Your task to perform on an android device: clear history in the chrome app Image 0: 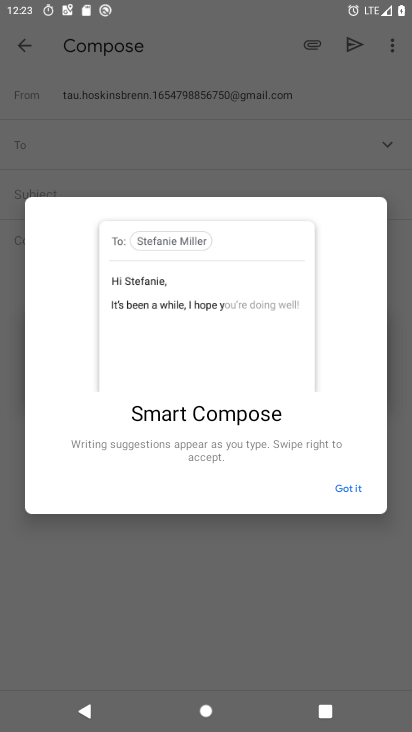
Step 0: press home button
Your task to perform on an android device: clear history in the chrome app Image 1: 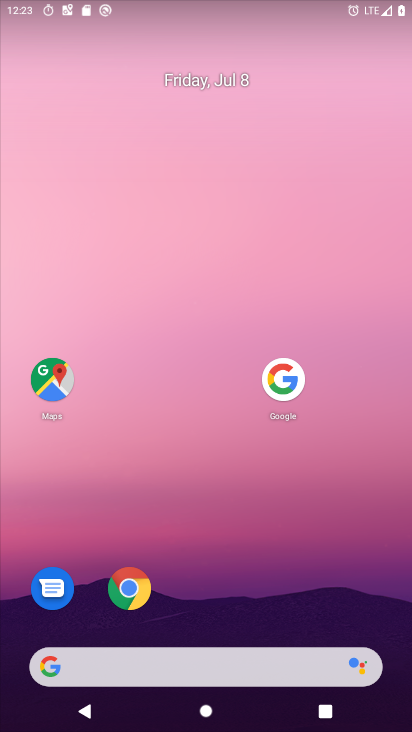
Step 1: click (138, 594)
Your task to perform on an android device: clear history in the chrome app Image 2: 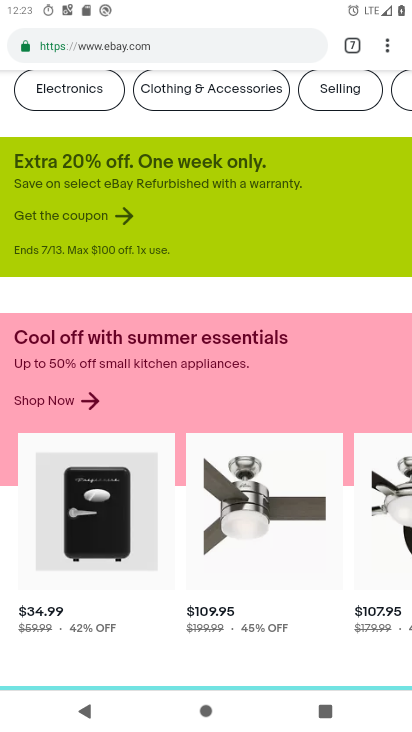
Step 2: drag from (389, 48) to (234, 266)
Your task to perform on an android device: clear history in the chrome app Image 3: 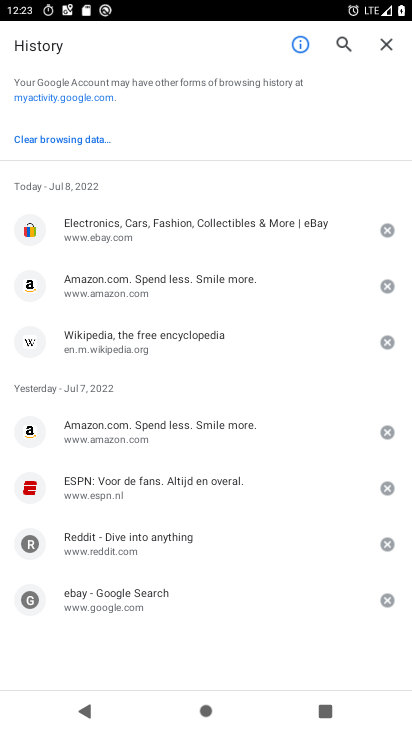
Step 3: click (63, 141)
Your task to perform on an android device: clear history in the chrome app Image 4: 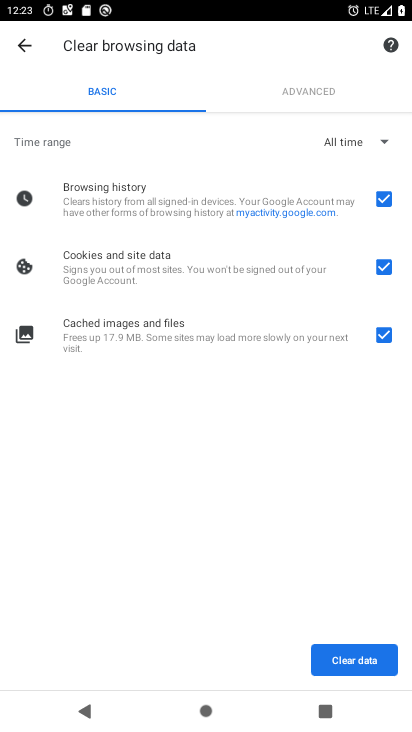
Step 4: click (363, 663)
Your task to perform on an android device: clear history in the chrome app Image 5: 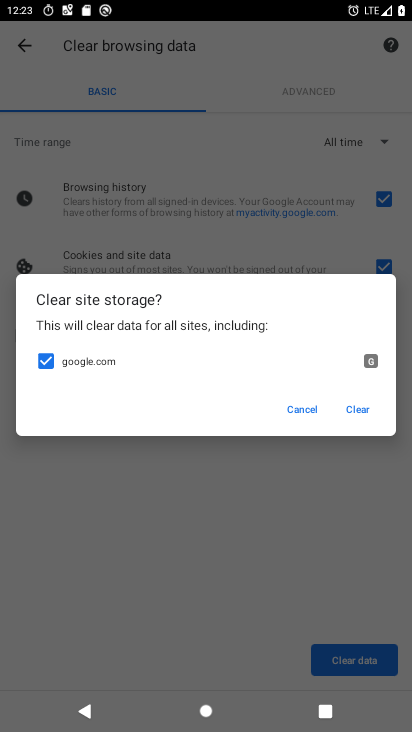
Step 5: click (359, 409)
Your task to perform on an android device: clear history in the chrome app Image 6: 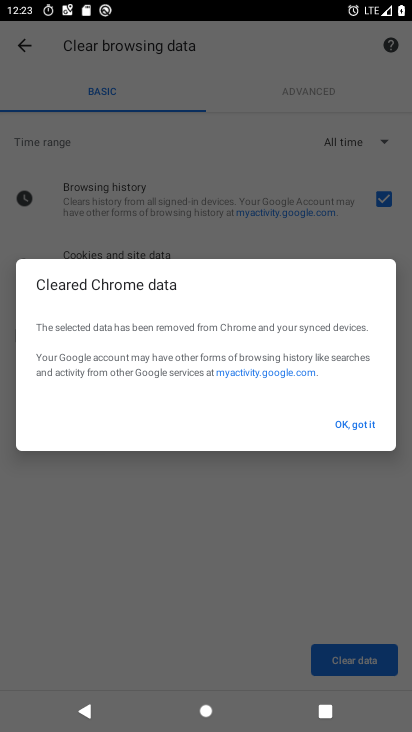
Step 6: click (358, 426)
Your task to perform on an android device: clear history in the chrome app Image 7: 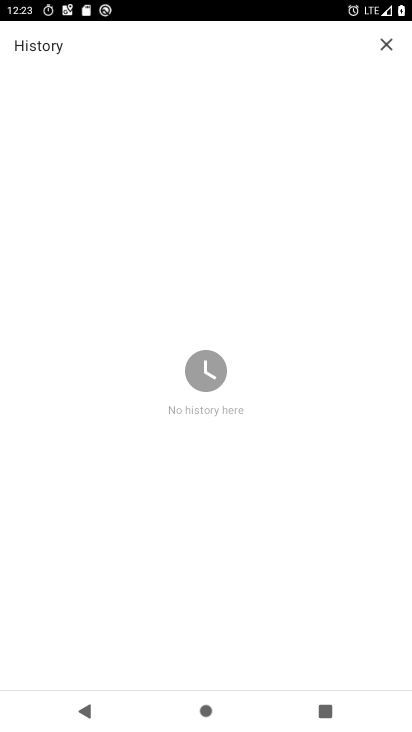
Step 7: task complete